Your task to perform on an android device: Open Youtube and go to "Your channel" Image 0: 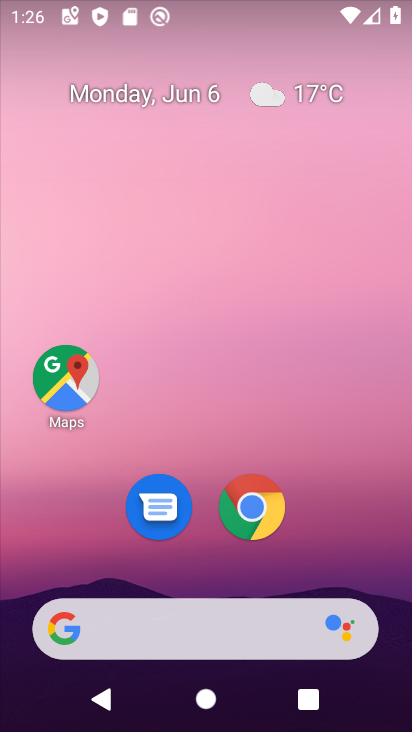
Step 0: drag from (387, 545) to (256, 45)
Your task to perform on an android device: Open Youtube and go to "Your channel" Image 1: 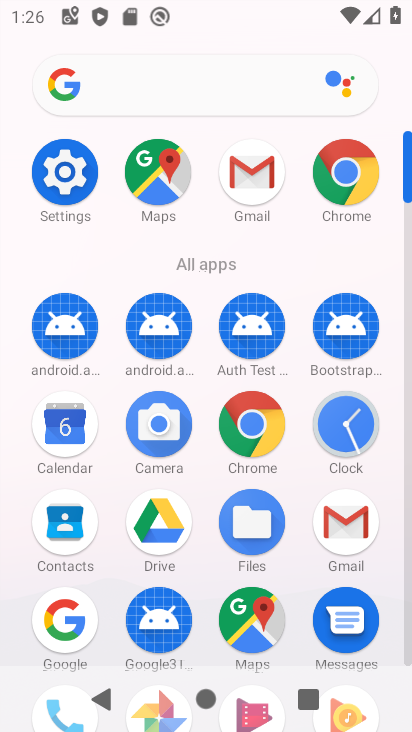
Step 1: drag from (15, 519) to (8, 222)
Your task to perform on an android device: Open Youtube and go to "Your channel" Image 2: 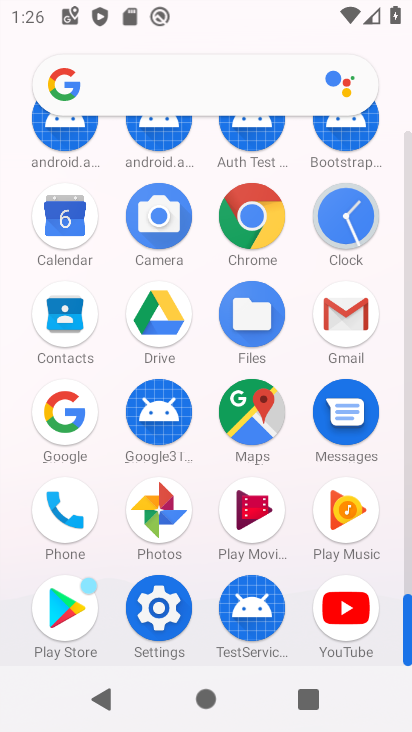
Step 2: click (345, 603)
Your task to perform on an android device: Open Youtube and go to "Your channel" Image 3: 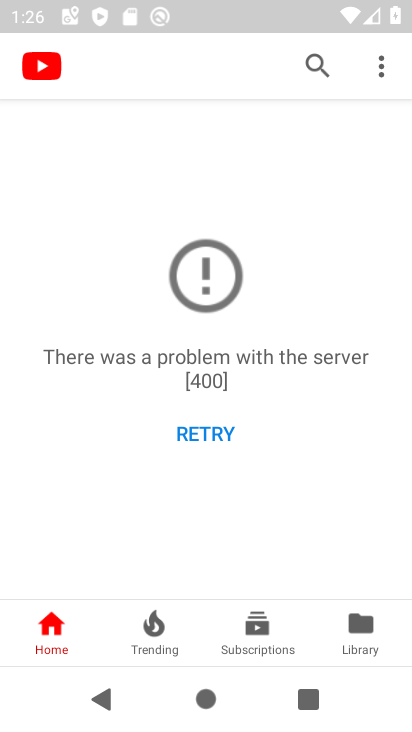
Step 3: click (378, 648)
Your task to perform on an android device: Open Youtube and go to "Your channel" Image 4: 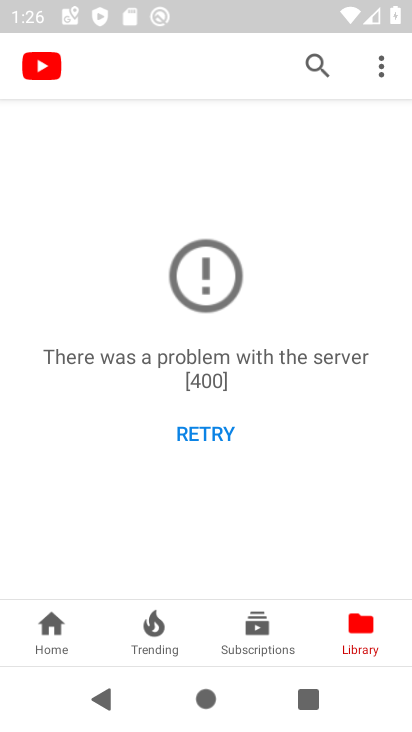
Step 4: click (379, 646)
Your task to perform on an android device: Open Youtube and go to "Your channel" Image 5: 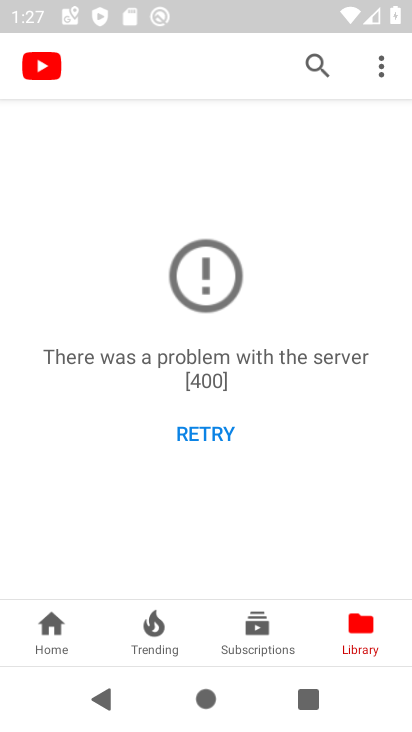
Step 5: task complete